Your task to perform on an android device: open sync settings in chrome Image 0: 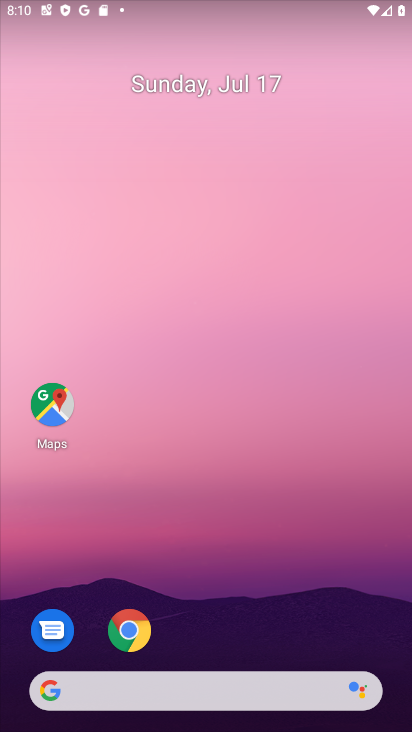
Step 0: click (144, 622)
Your task to perform on an android device: open sync settings in chrome Image 1: 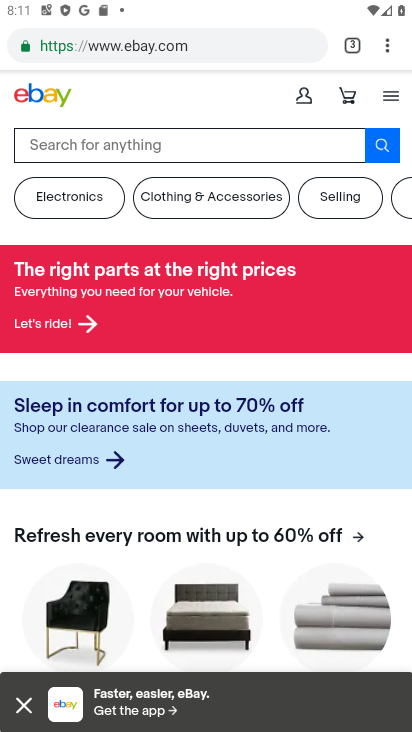
Step 1: click (131, 39)
Your task to perform on an android device: open sync settings in chrome Image 2: 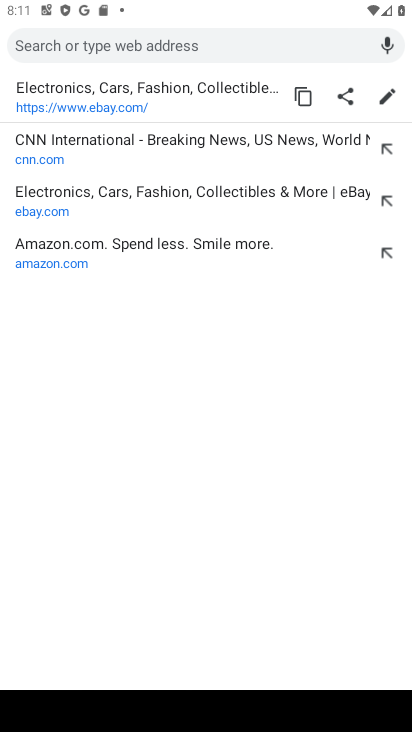
Step 2: press back button
Your task to perform on an android device: open sync settings in chrome Image 3: 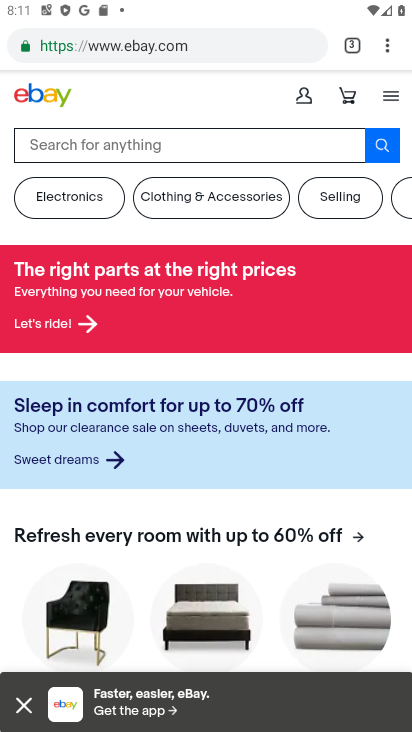
Step 3: click (387, 46)
Your task to perform on an android device: open sync settings in chrome Image 4: 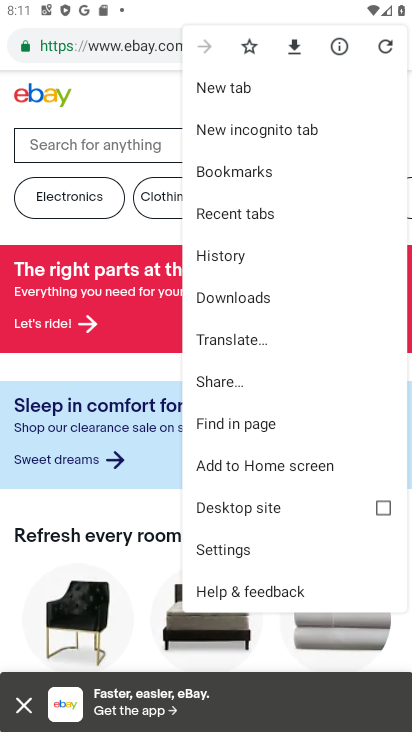
Step 4: click (240, 555)
Your task to perform on an android device: open sync settings in chrome Image 5: 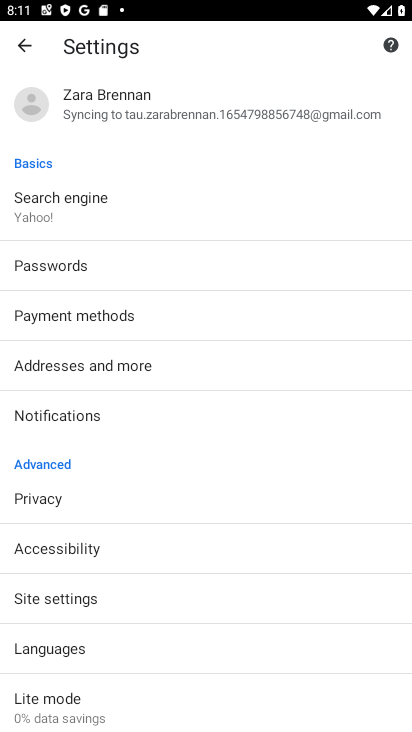
Step 5: click (129, 112)
Your task to perform on an android device: open sync settings in chrome Image 6: 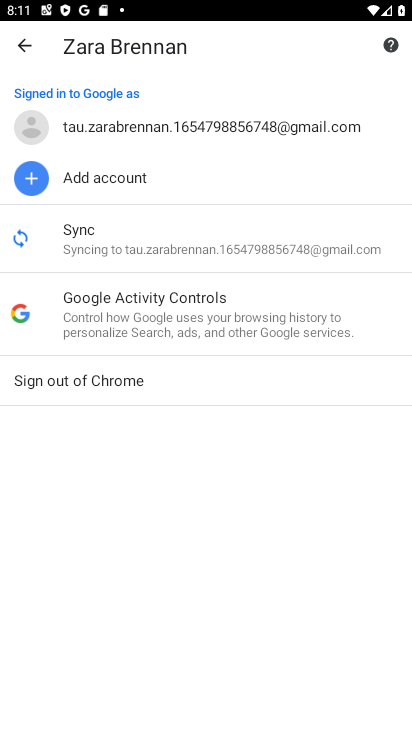
Step 6: task complete